Your task to perform on an android device: Empty the shopping cart on target.com. Add "logitech g903" to the cart on target.com Image 0: 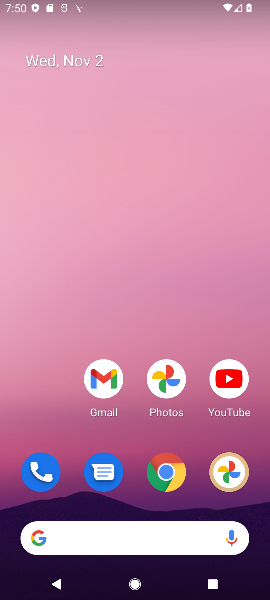
Step 0: task impossible